Your task to perform on an android device: delete a single message in the gmail app Image 0: 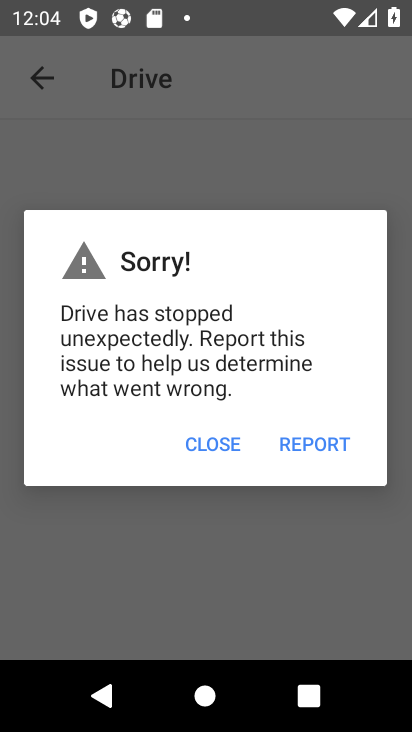
Step 0: press home button
Your task to perform on an android device: delete a single message in the gmail app Image 1: 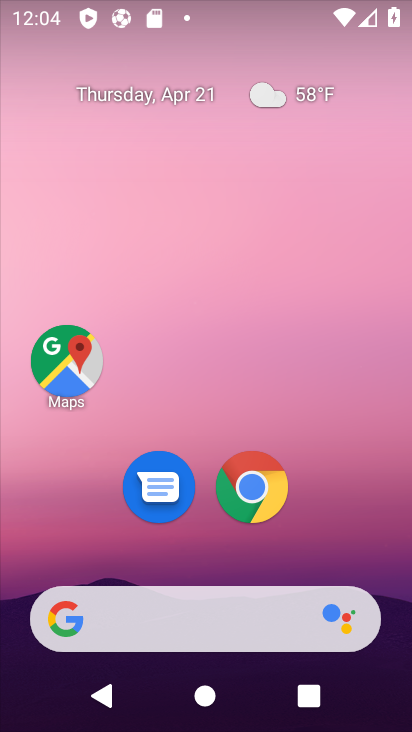
Step 1: drag from (369, 486) to (378, 3)
Your task to perform on an android device: delete a single message in the gmail app Image 2: 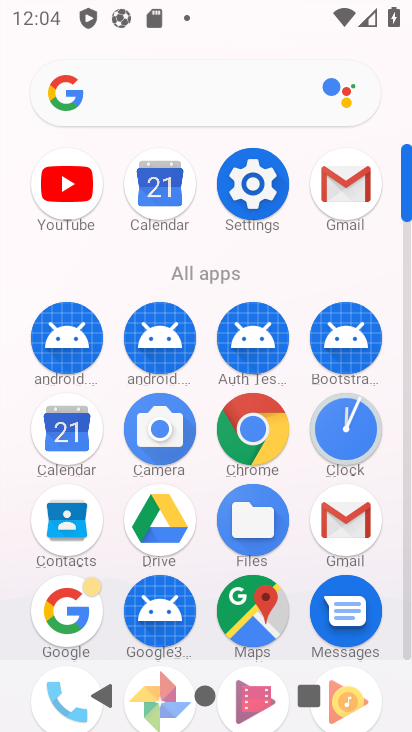
Step 2: click (344, 243)
Your task to perform on an android device: delete a single message in the gmail app Image 3: 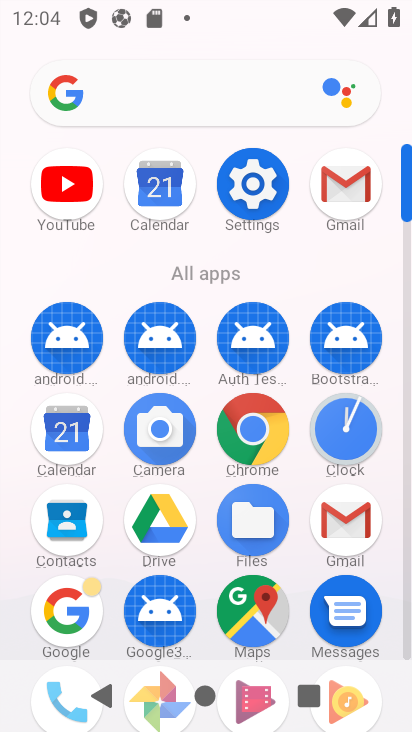
Step 3: click (333, 195)
Your task to perform on an android device: delete a single message in the gmail app Image 4: 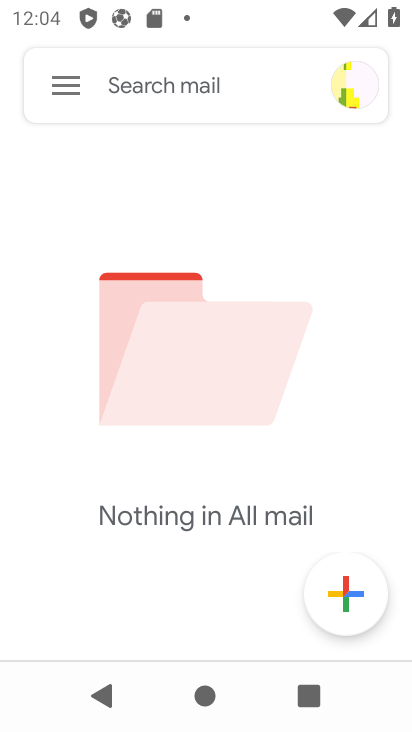
Step 4: task complete